Your task to perform on an android device: Add "apple airpods pro" to the cart on ebay Image 0: 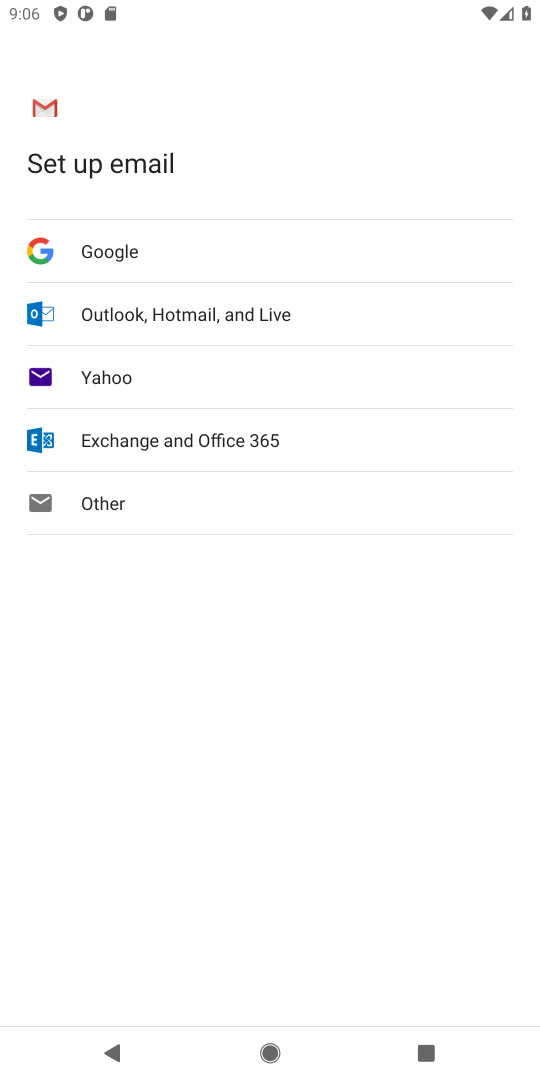
Step 0: press home button
Your task to perform on an android device: Add "apple airpods pro" to the cart on ebay Image 1: 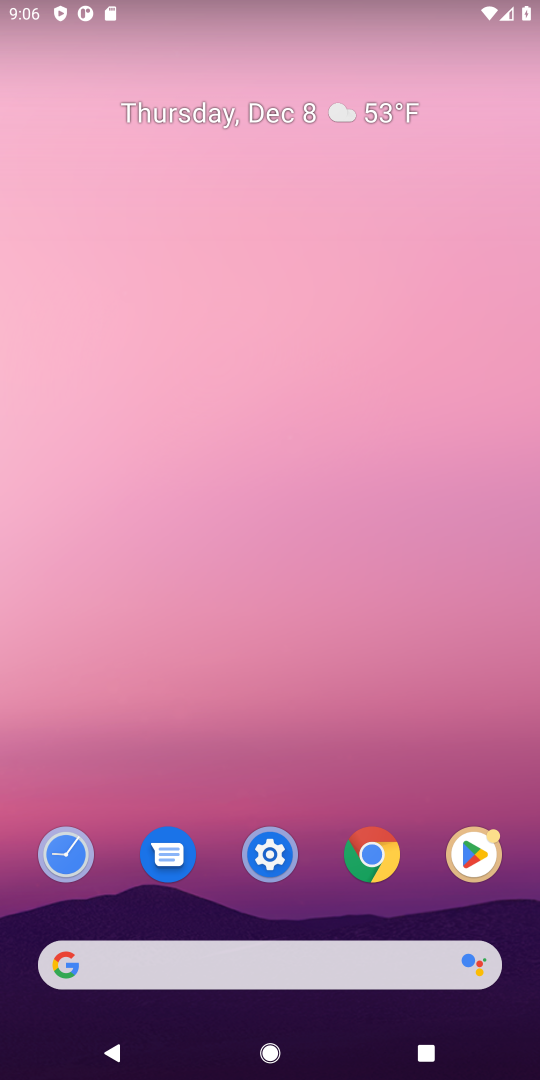
Step 1: click (96, 966)
Your task to perform on an android device: Add "apple airpods pro" to the cart on ebay Image 2: 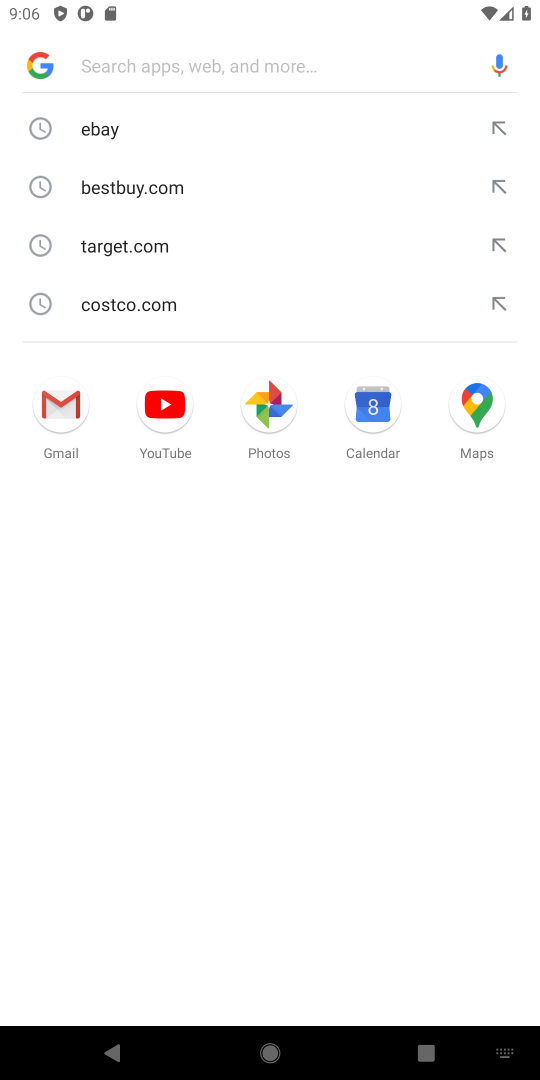
Step 2: type "ebay"
Your task to perform on an android device: Add "apple airpods pro" to the cart on ebay Image 3: 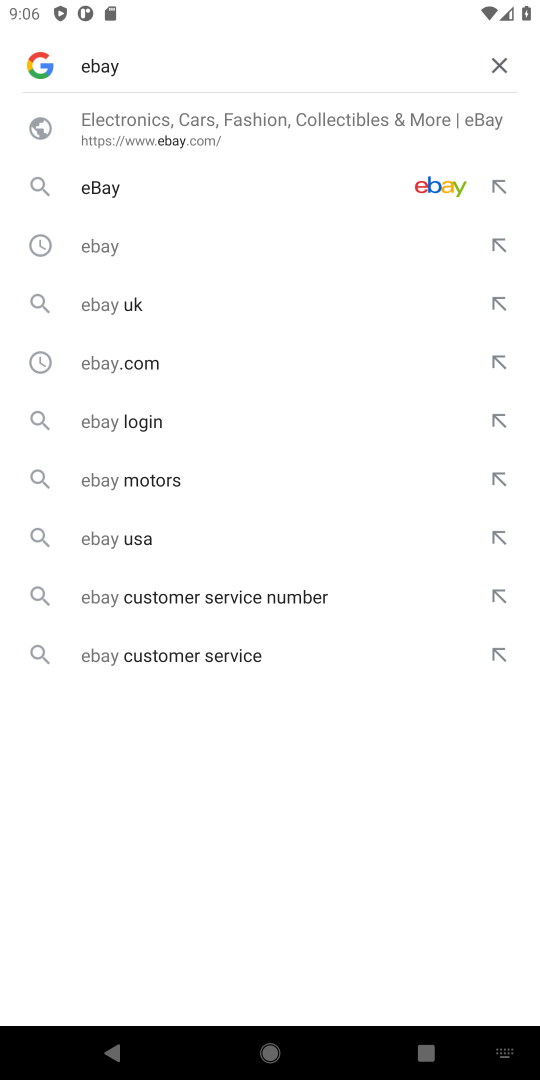
Step 3: press enter
Your task to perform on an android device: Add "apple airpods pro" to the cart on ebay Image 4: 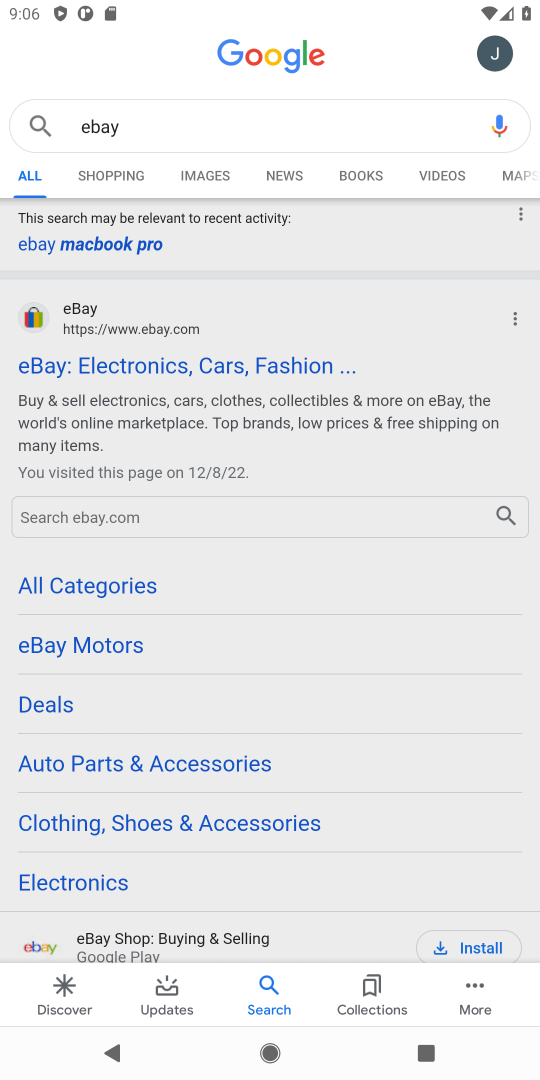
Step 4: click (187, 363)
Your task to perform on an android device: Add "apple airpods pro" to the cart on ebay Image 5: 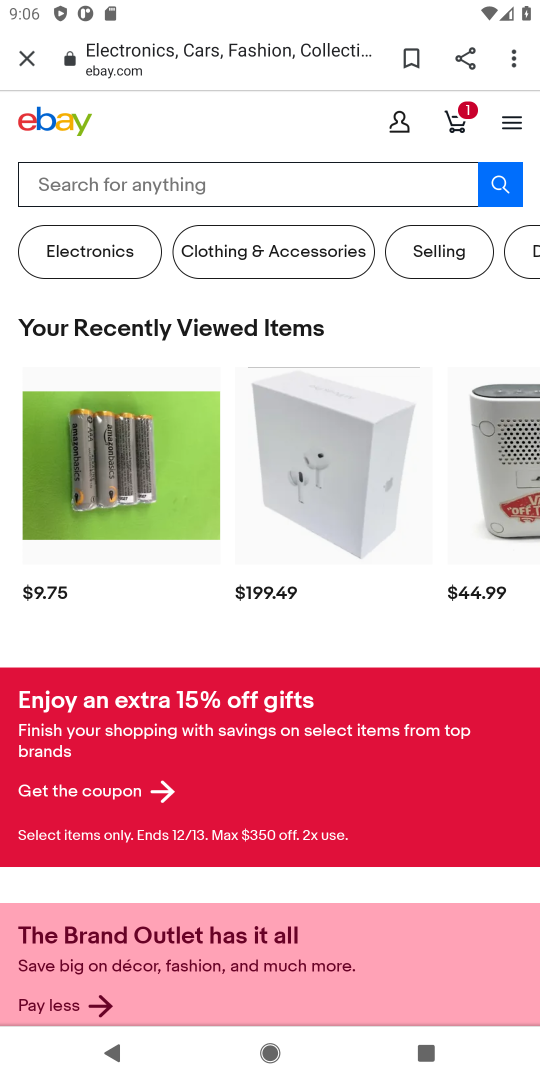
Step 5: click (61, 184)
Your task to perform on an android device: Add "apple airpods pro" to the cart on ebay Image 6: 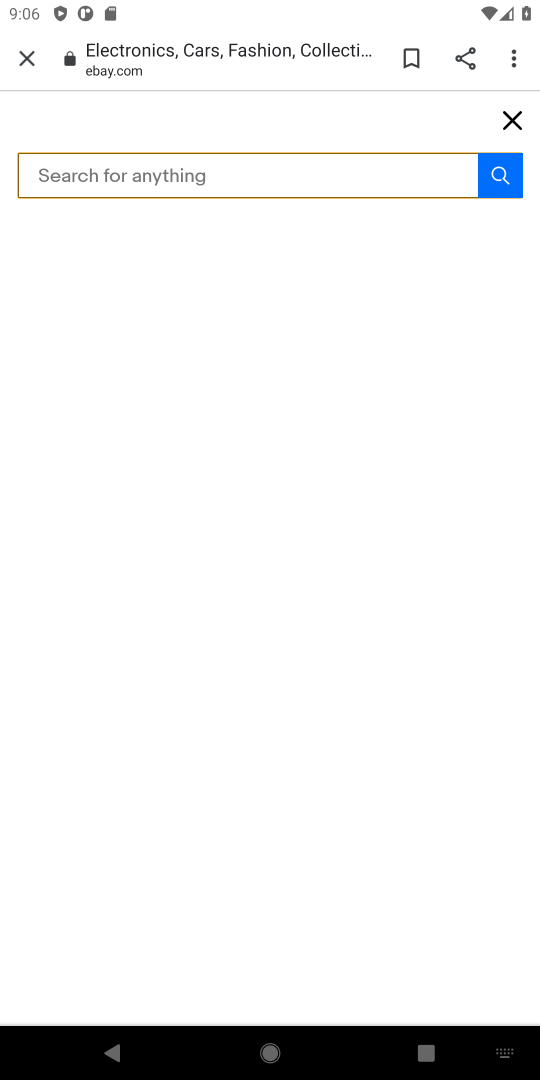
Step 6: type "apple airpods pro"
Your task to perform on an android device: Add "apple airpods pro" to the cart on ebay Image 7: 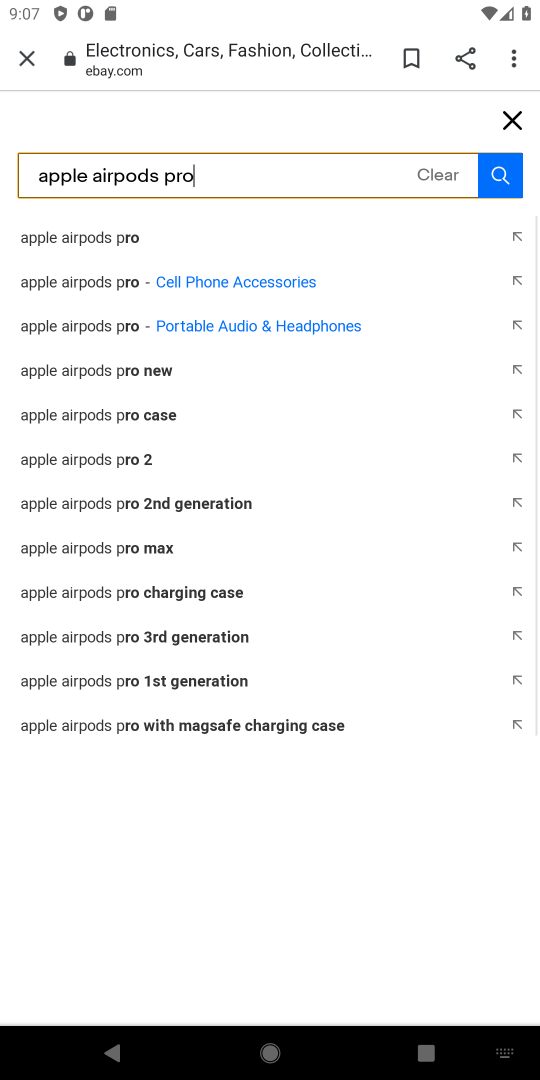
Step 7: press enter
Your task to perform on an android device: Add "apple airpods pro" to the cart on ebay Image 8: 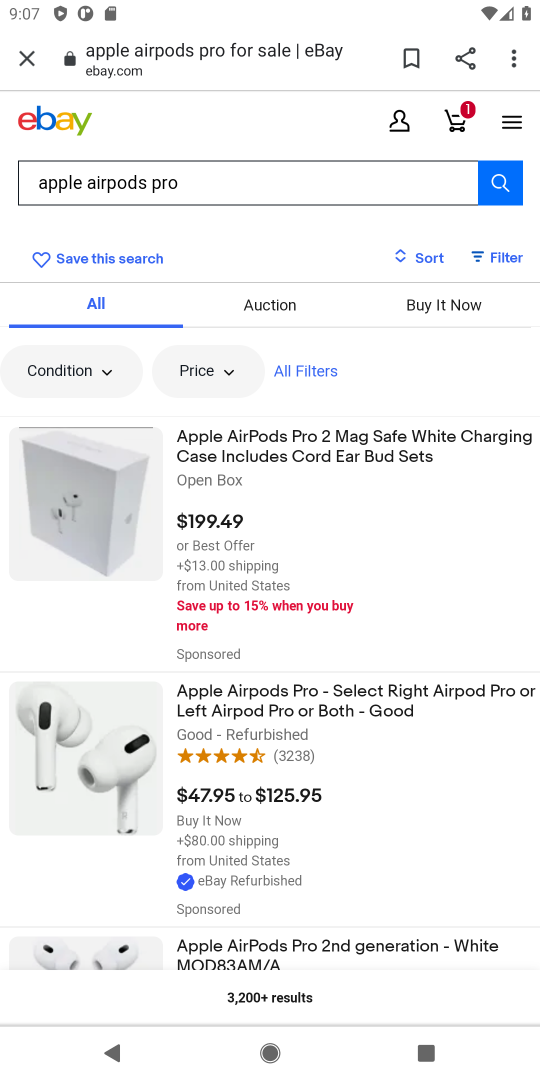
Step 8: click (259, 455)
Your task to perform on an android device: Add "apple airpods pro" to the cart on ebay Image 9: 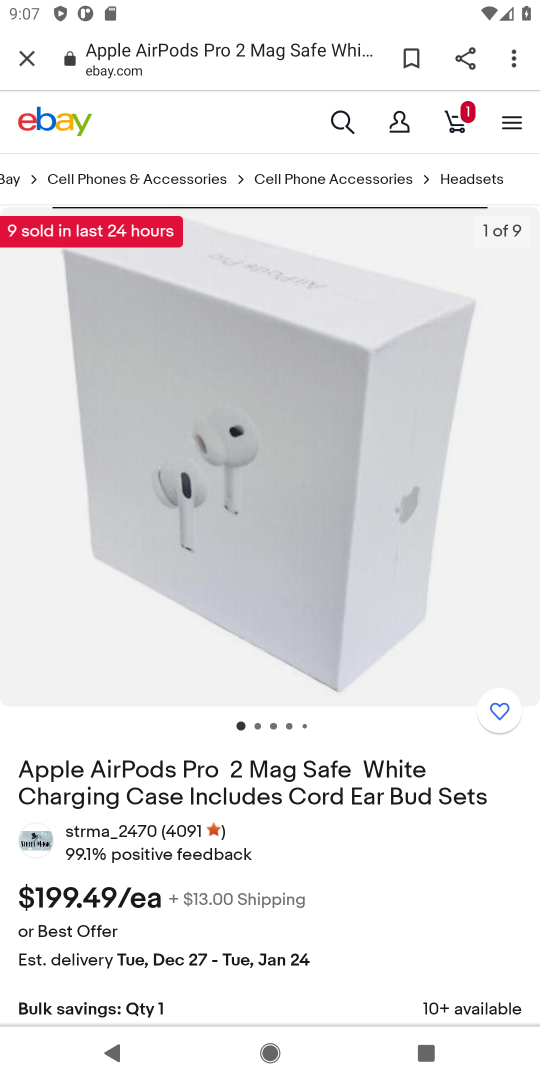
Step 9: drag from (356, 877) to (395, 369)
Your task to perform on an android device: Add "apple airpods pro" to the cart on ebay Image 10: 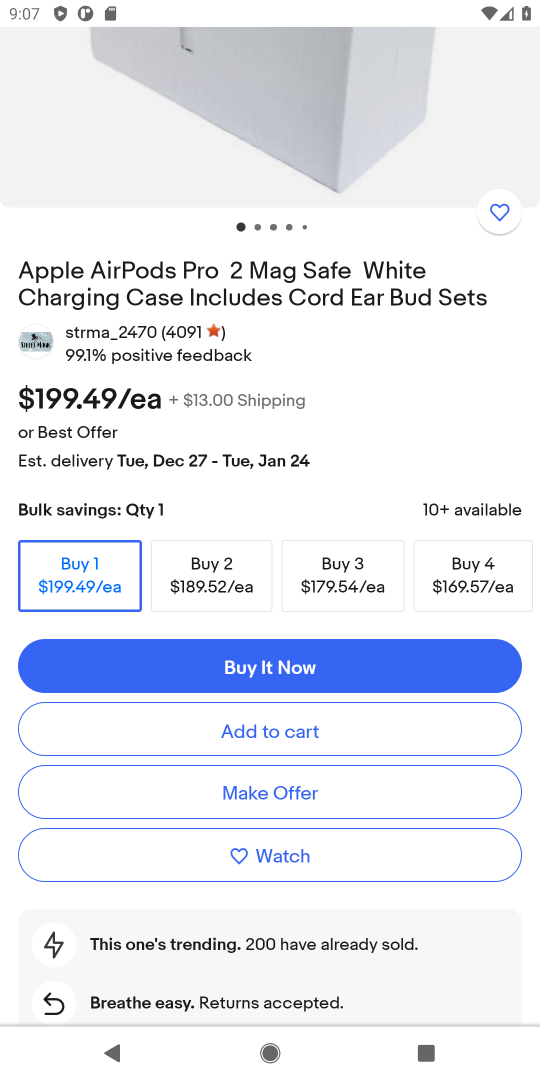
Step 10: click (217, 730)
Your task to perform on an android device: Add "apple airpods pro" to the cart on ebay Image 11: 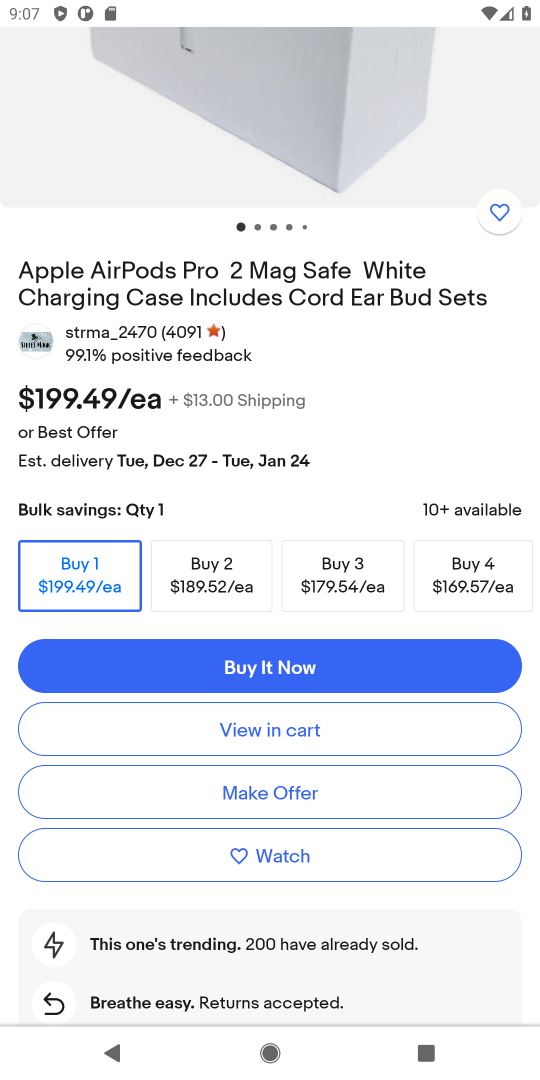
Step 11: task complete